Your task to perform on an android device: Add "logitech g933" to the cart on costco.com, then select checkout. Image 0: 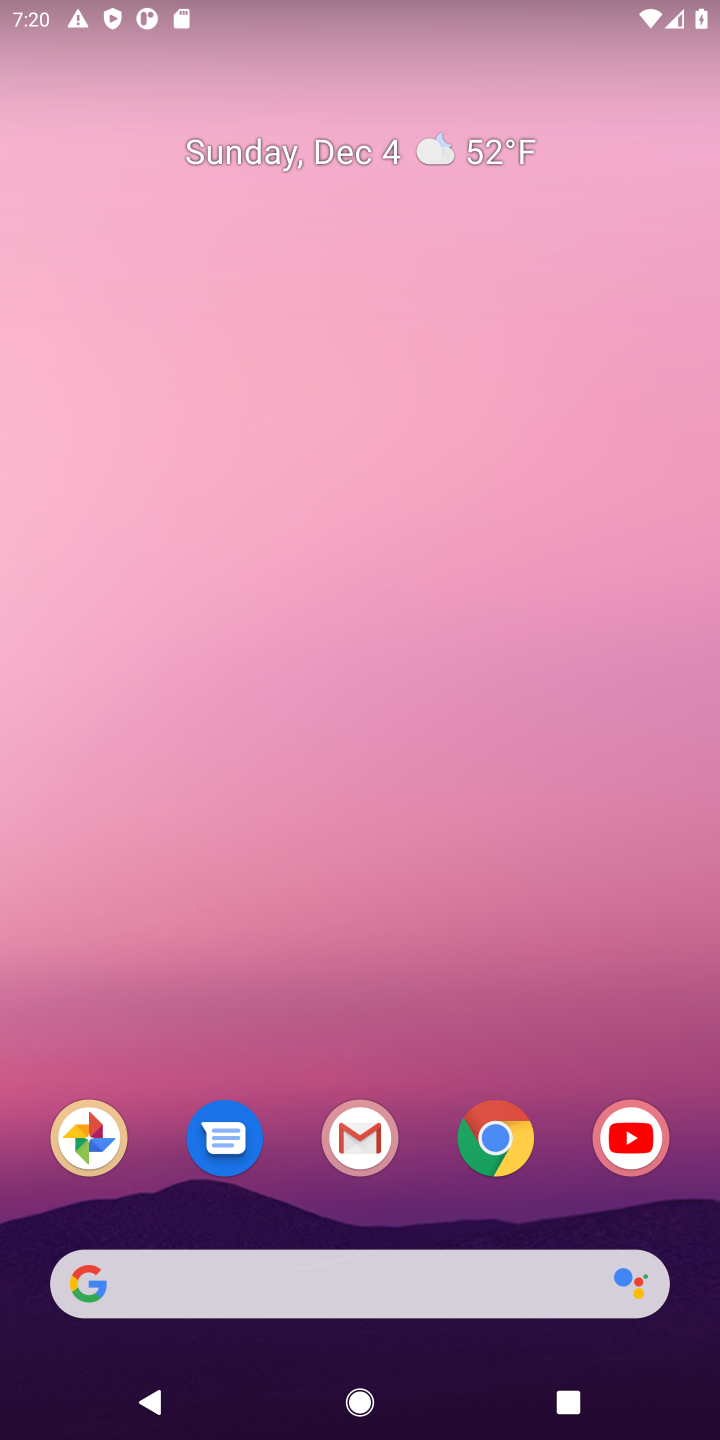
Step 0: click (486, 1154)
Your task to perform on an android device: Add "logitech g933" to the cart on costco.com, then select checkout. Image 1: 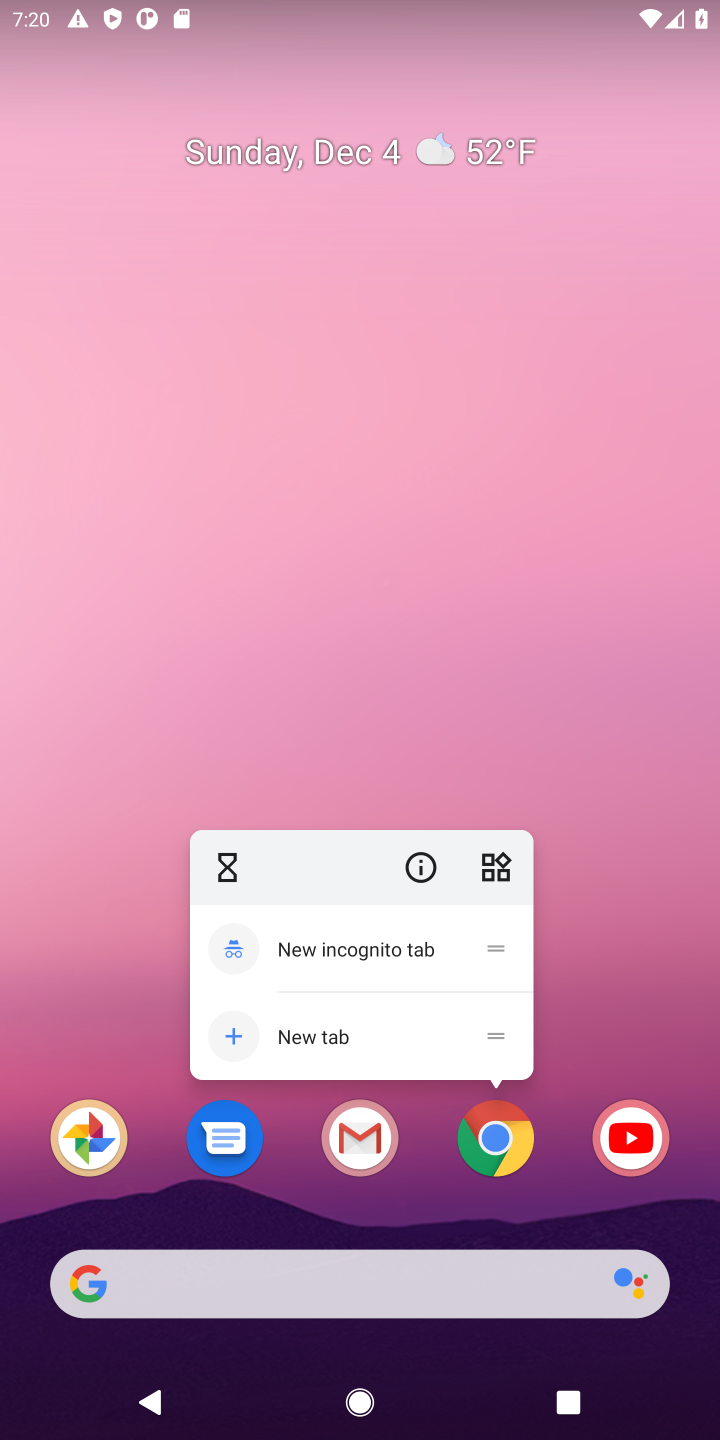
Step 1: click (486, 1154)
Your task to perform on an android device: Add "logitech g933" to the cart on costco.com, then select checkout. Image 2: 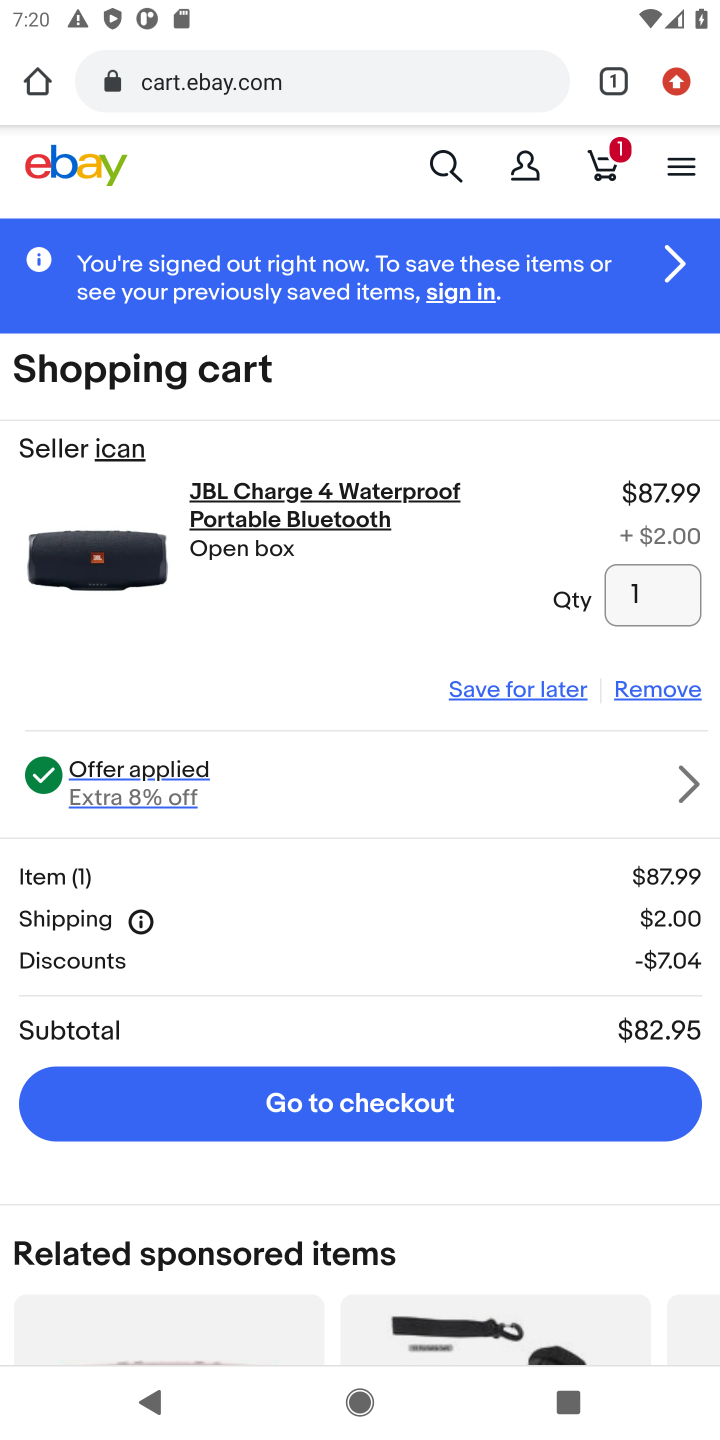
Step 2: click (487, 81)
Your task to perform on an android device: Add "logitech g933" to the cart on costco.com, then select checkout. Image 3: 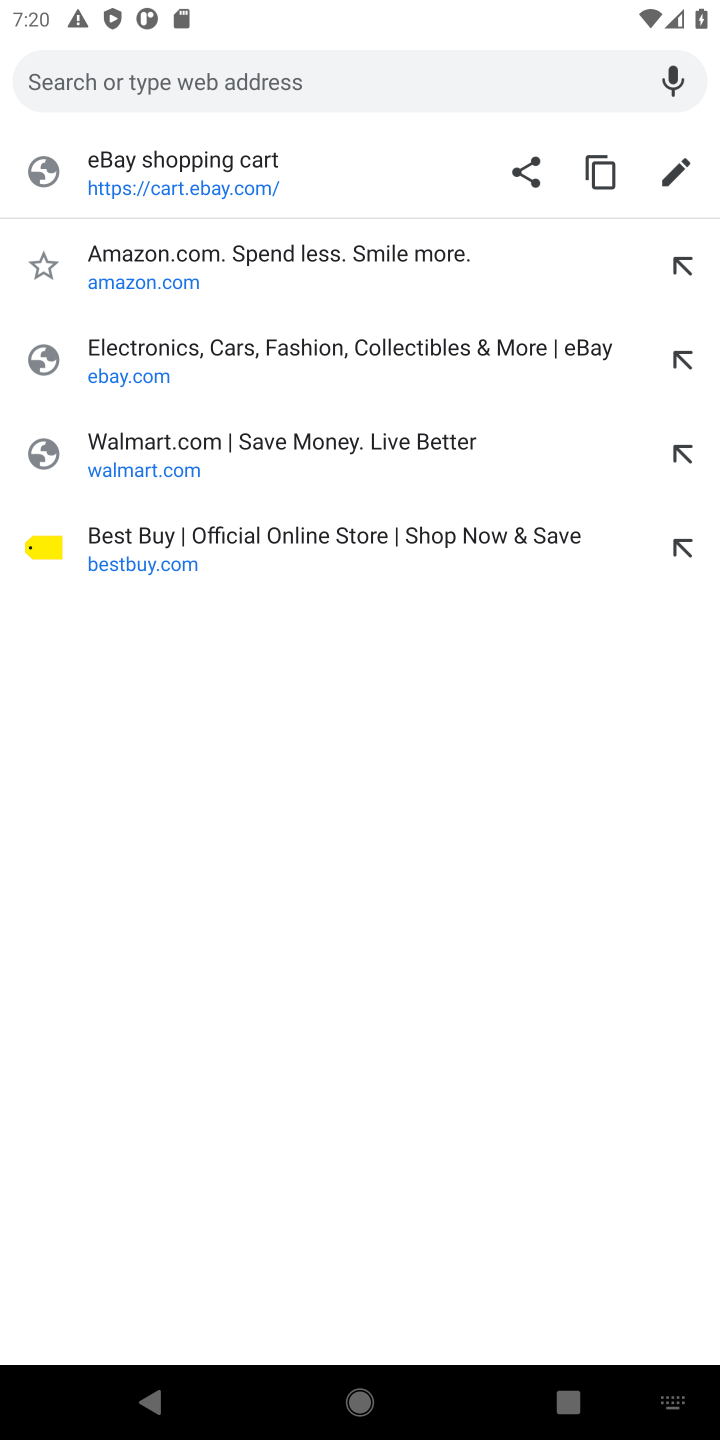
Step 3: type "costco.com"
Your task to perform on an android device: Add "logitech g933" to the cart on costco.com, then select checkout. Image 4: 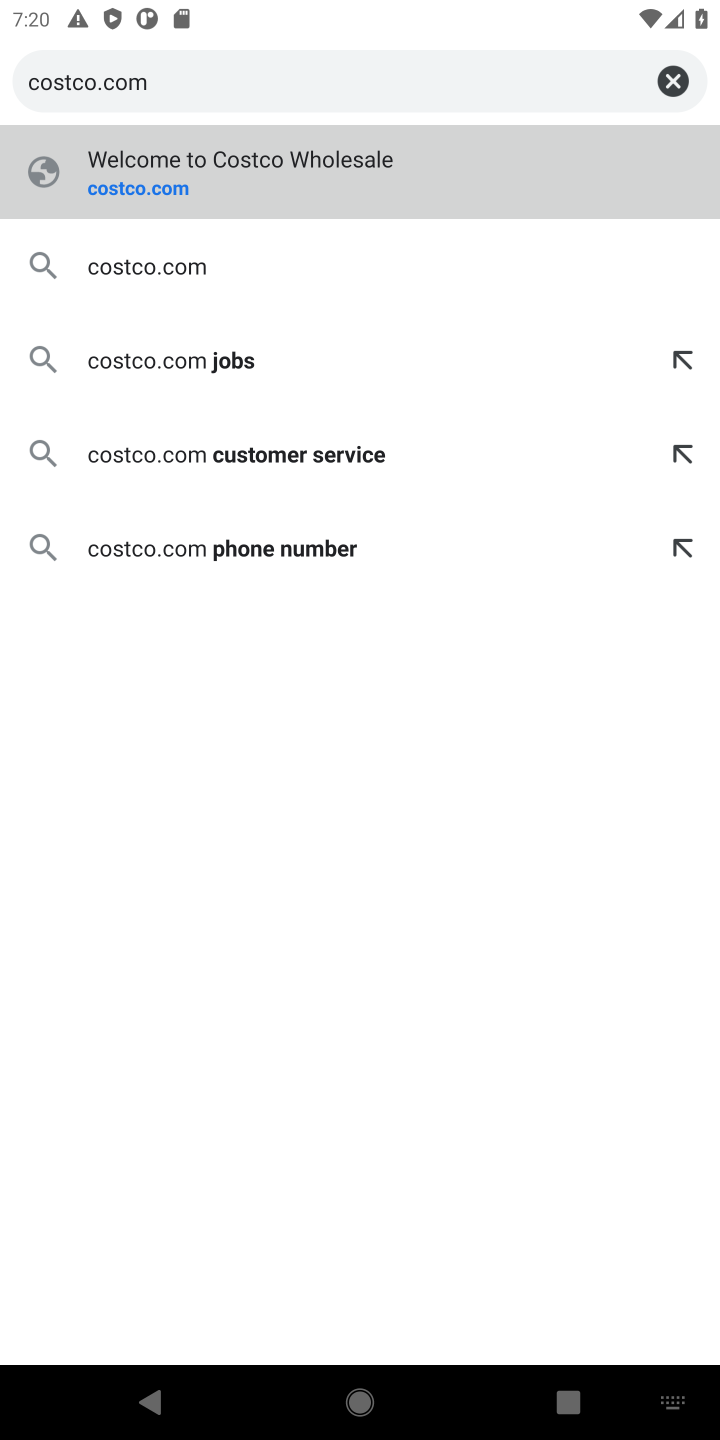
Step 4: press enter
Your task to perform on an android device: Add "logitech g933" to the cart on costco.com, then select checkout. Image 5: 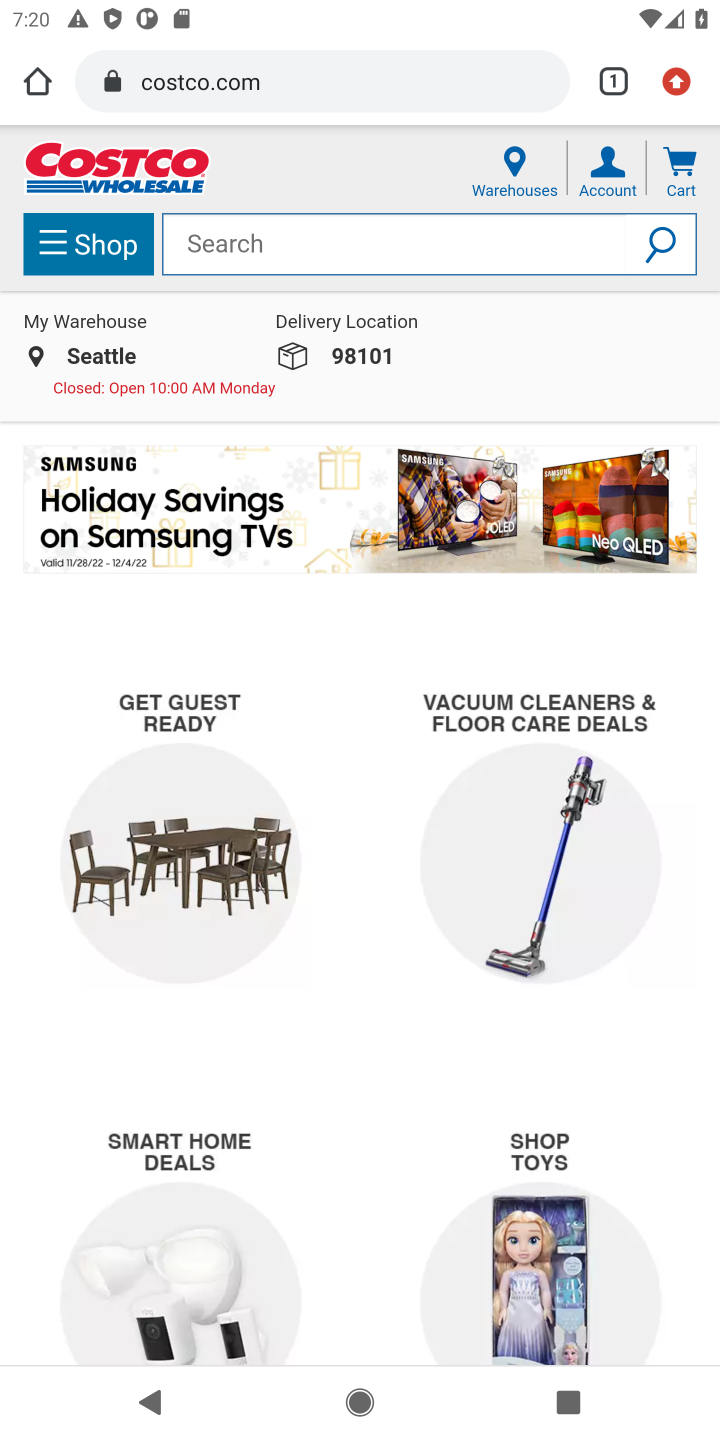
Step 5: click (414, 246)
Your task to perform on an android device: Add "logitech g933" to the cart on costco.com, then select checkout. Image 6: 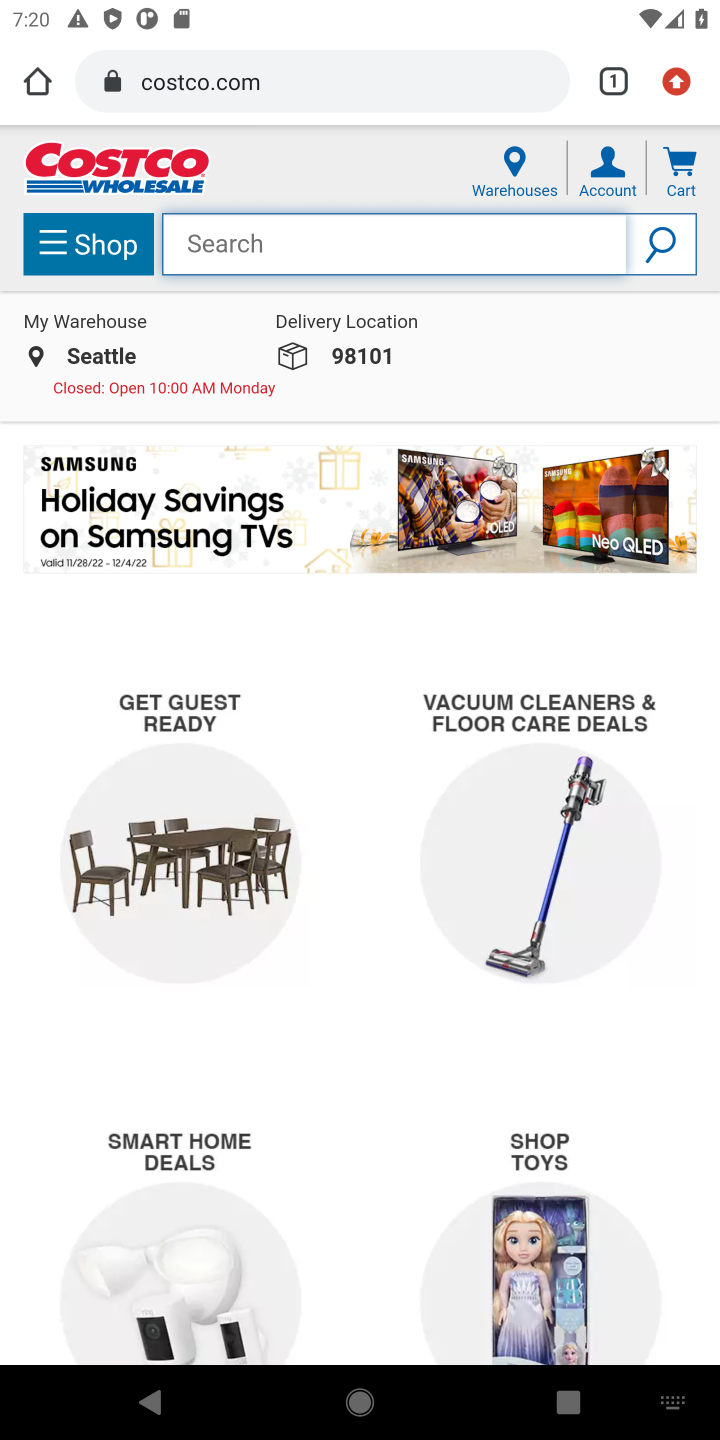
Step 6: type "logitech g933"
Your task to perform on an android device: Add "logitech g933" to the cart on costco.com, then select checkout. Image 7: 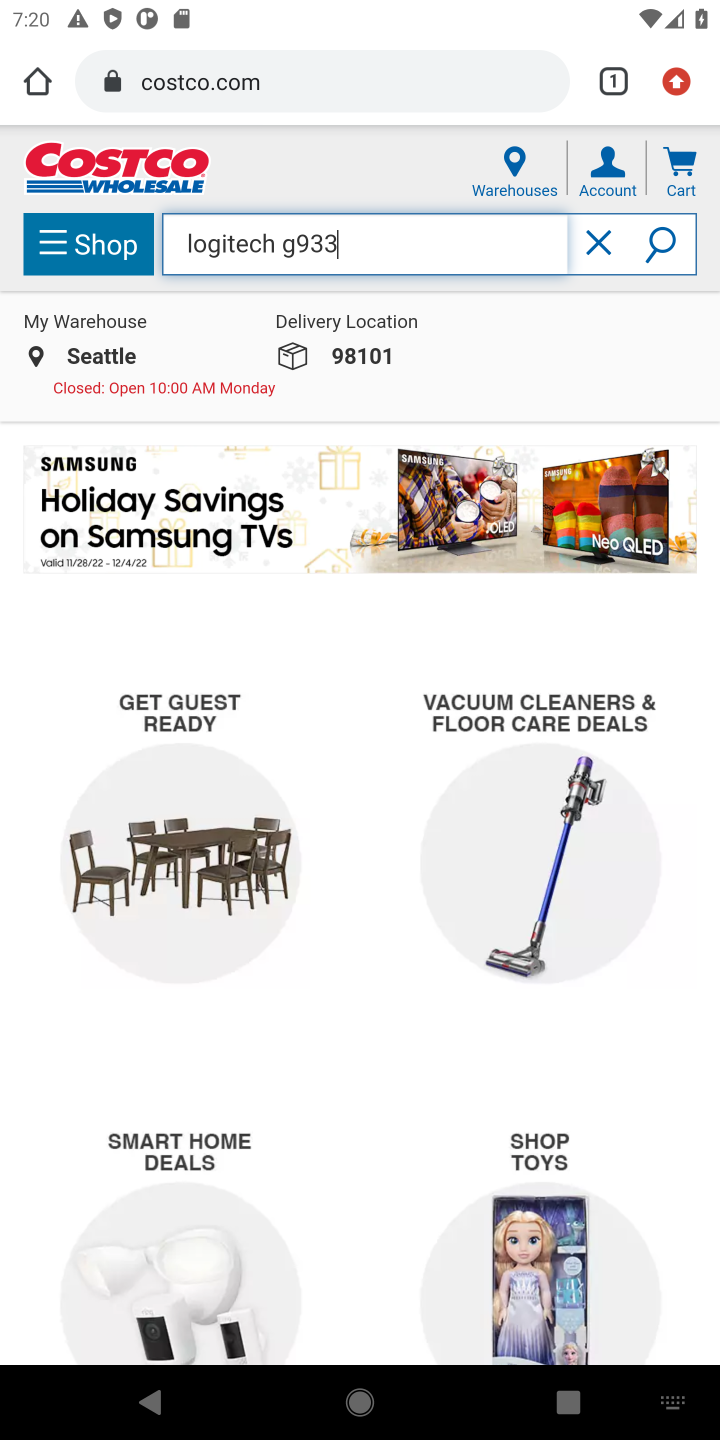
Step 7: press enter
Your task to perform on an android device: Add "logitech g933" to the cart on costco.com, then select checkout. Image 8: 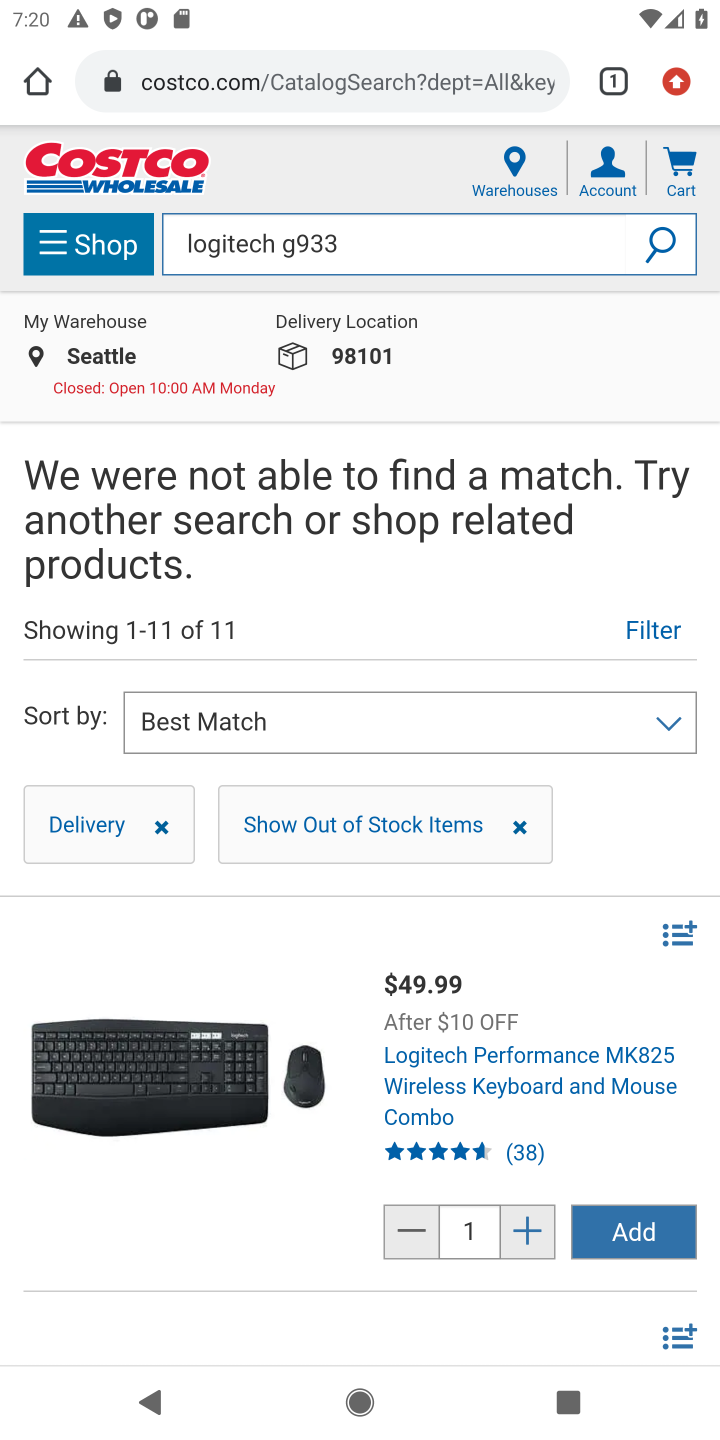
Step 8: task complete